Your task to perform on an android device: See recent photos Image 0: 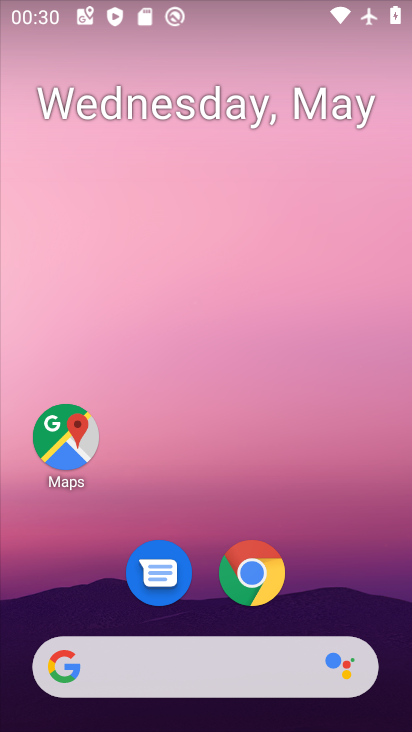
Step 0: drag from (304, 282) to (299, 105)
Your task to perform on an android device: See recent photos Image 1: 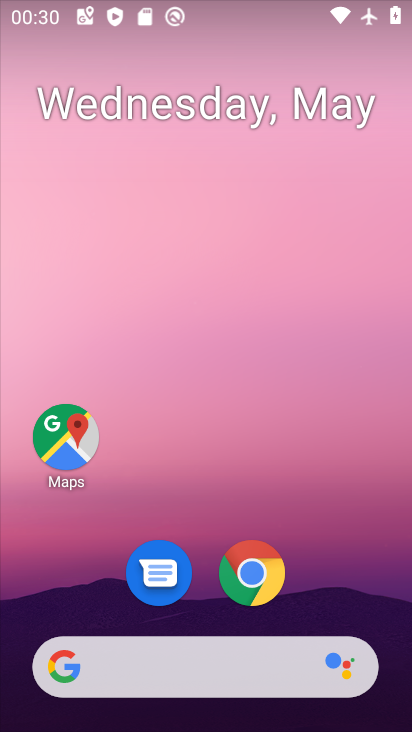
Step 1: drag from (273, 590) to (246, 184)
Your task to perform on an android device: See recent photos Image 2: 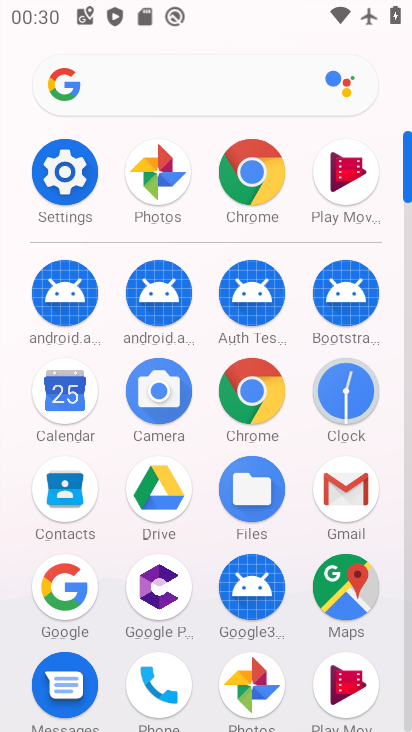
Step 2: click (246, 675)
Your task to perform on an android device: See recent photos Image 3: 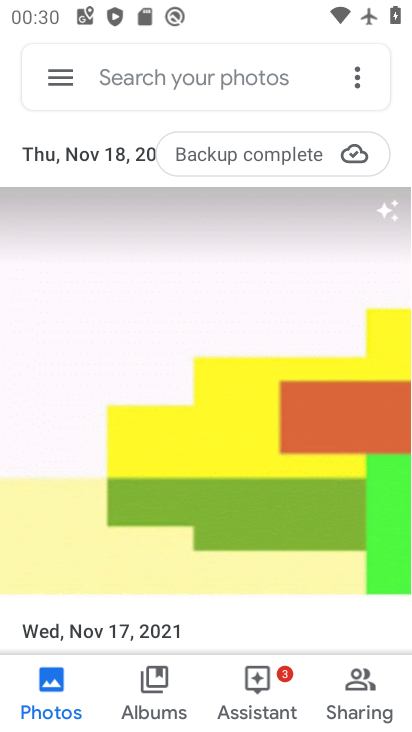
Step 3: task complete